Your task to perform on an android device: check data usage Image 0: 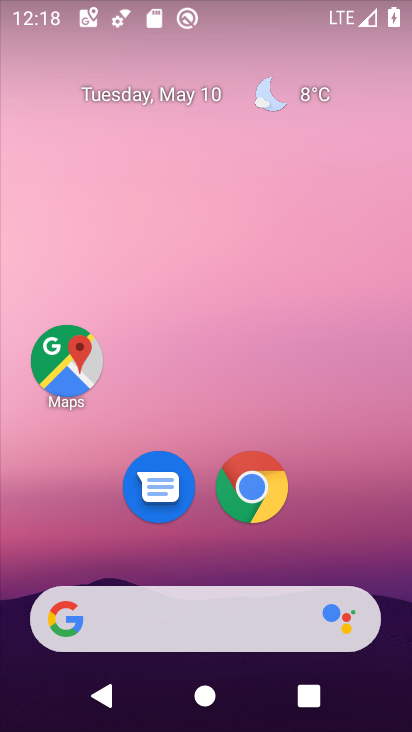
Step 0: drag from (201, 558) to (201, 48)
Your task to perform on an android device: check data usage Image 1: 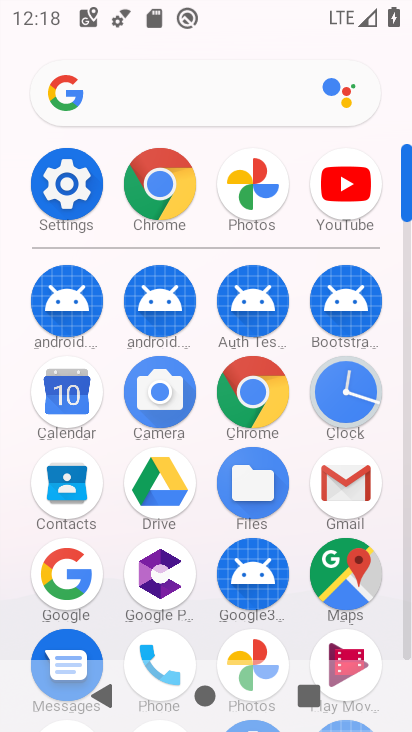
Step 1: click (64, 181)
Your task to perform on an android device: check data usage Image 2: 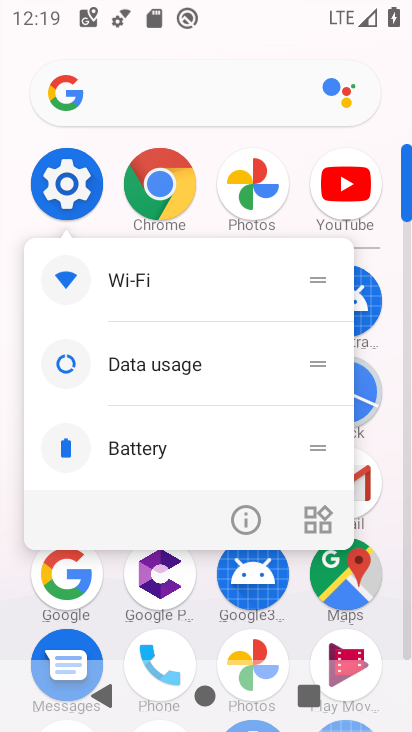
Step 2: click (65, 178)
Your task to perform on an android device: check data usage Image 3: 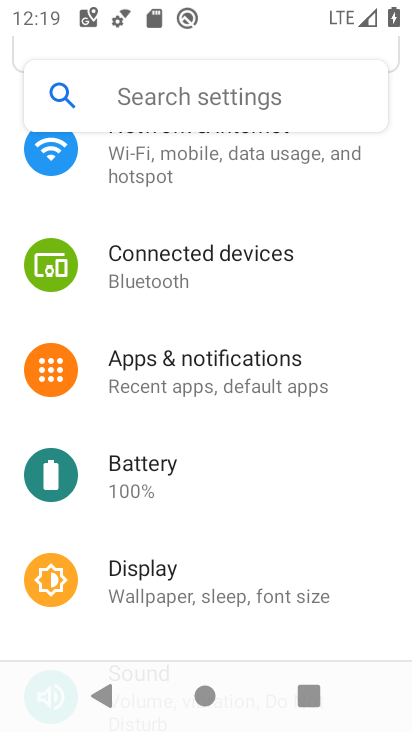
Step 3: click (176, 164)
Your task to perform on an android device: check data usage Image 4: 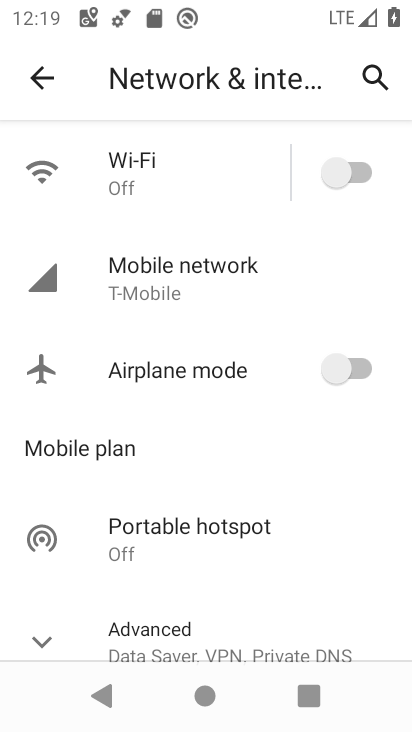
Step 4: click (203, 281)
Your task to perform on an android device: check data usage Image 5: 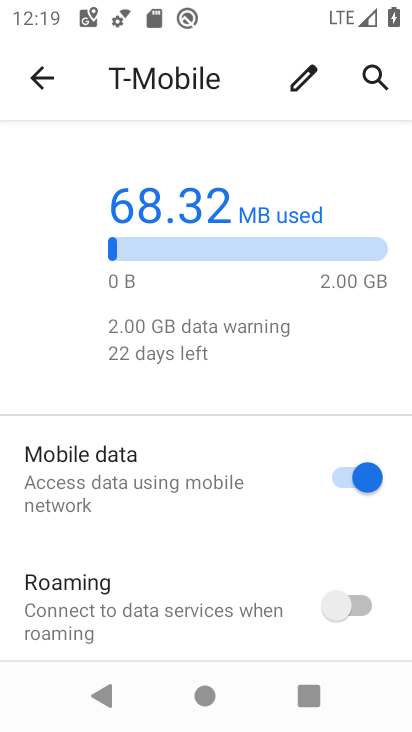
Step 5: drag from (192, 631) to (251, 308)
Your task to perform on an android device: check data usage Image 6: 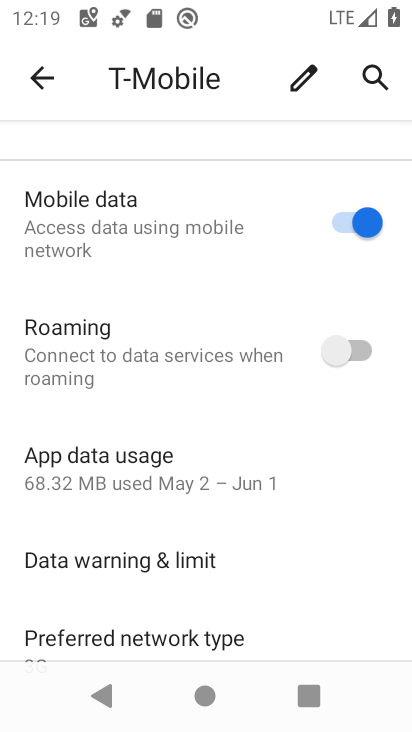
Step 6: click (195, 456)
Your task to perform on an android device: check data usage Image 7: 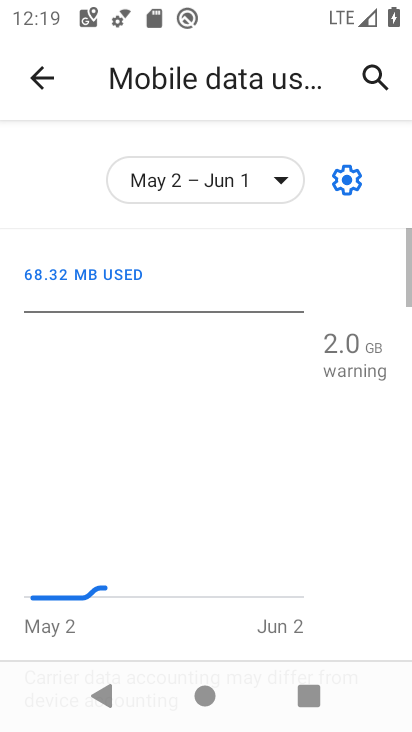
Step 7: task complete